Your task to perform on an android device: open app "Google Keep" Image 0: 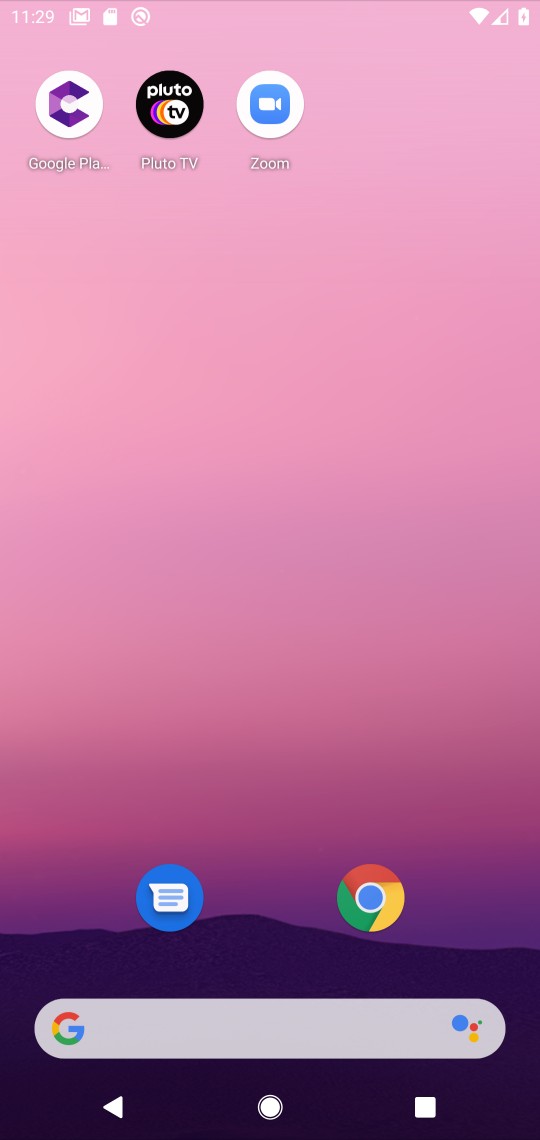
Step 0: press back button
Your task to perform on an android device: open app "Google Keep" Image 1: 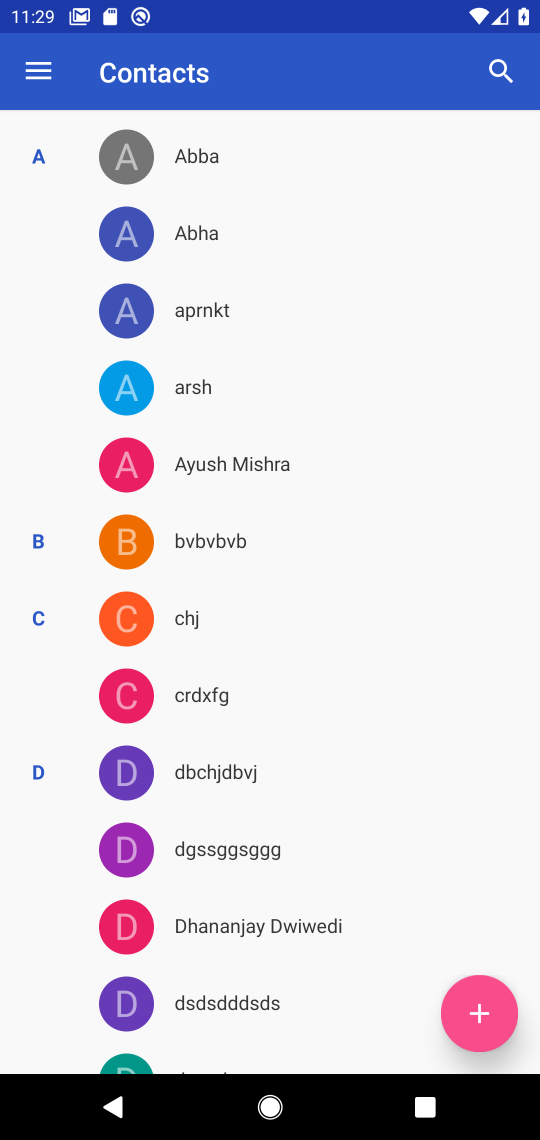
Step 1: click (332, 233)
Your task to perform on an android device: open app "Google Keep" Image 2: 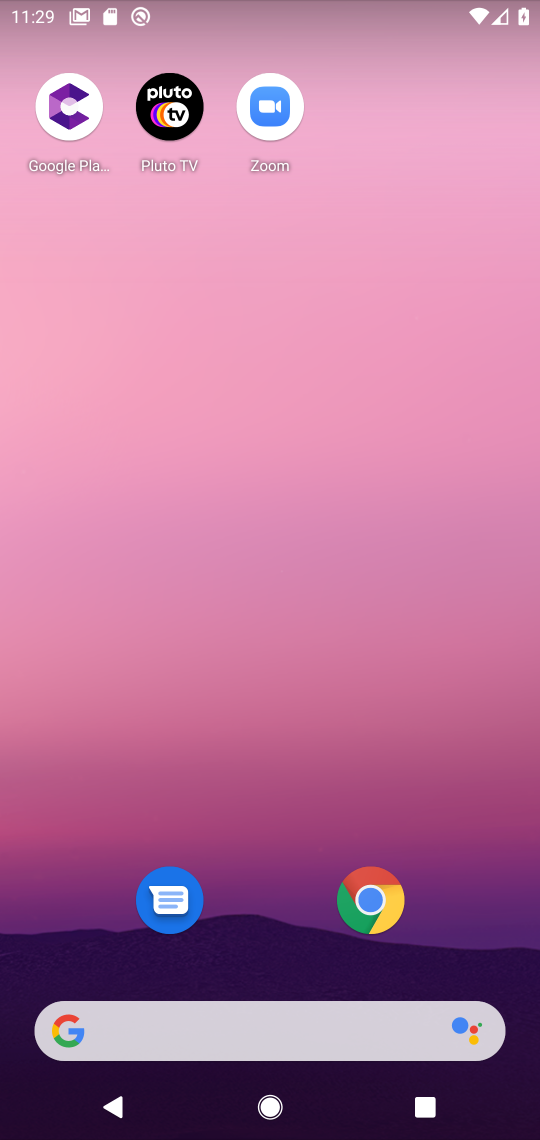
Step 2: drag from (285, 807) to (290, 328)
Your task to perform on an android device: open app "Google Keep" Image 3: 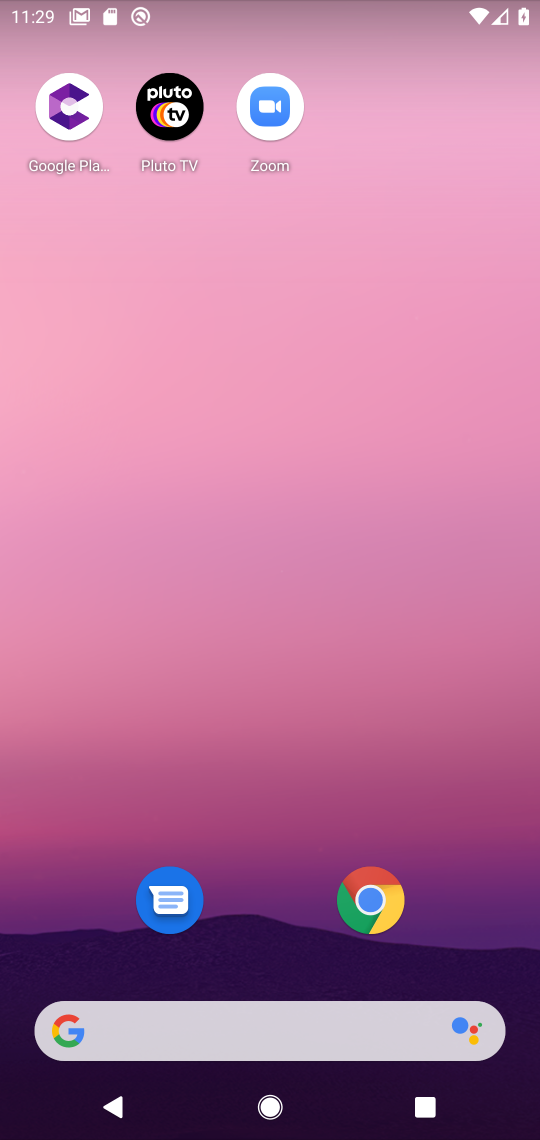
Step 3: drag from (263, 861) to (326, 88)
Your task to perform on an android device: open app "Google Keep" Image 4: 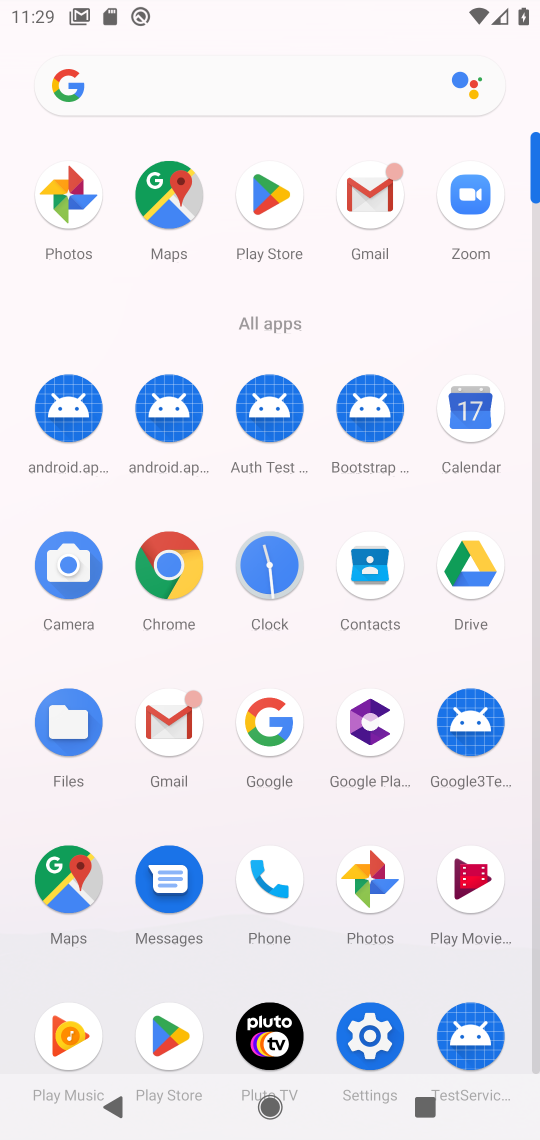
Step 4: click (265, 190)
Your task to perform on an android device: open app "Google Keep" Image 5: 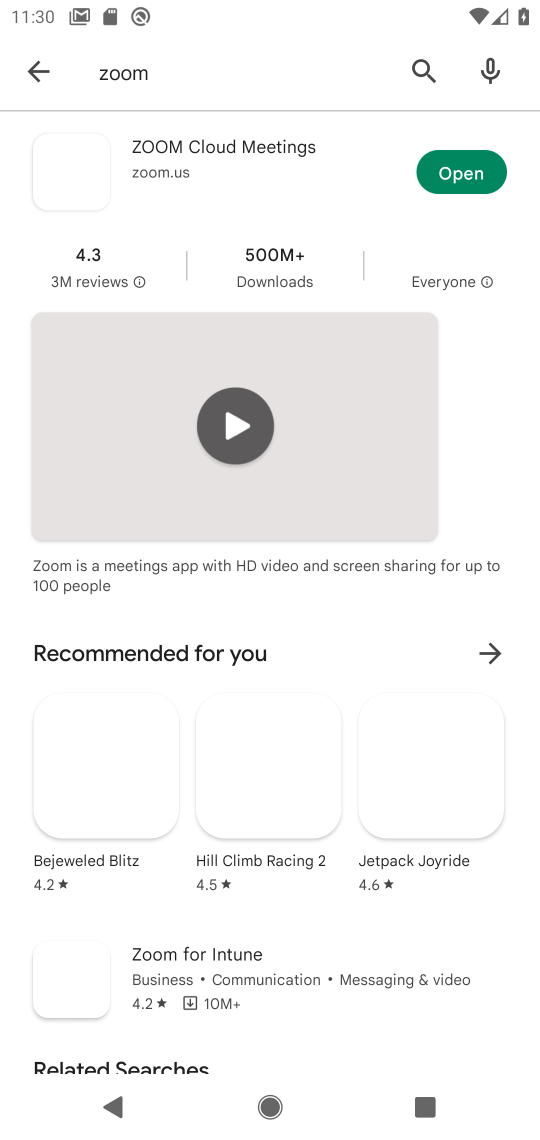
Step 5: click (426, 74)
Your task to perform on an android device: open app "Google Keep" Image 6: 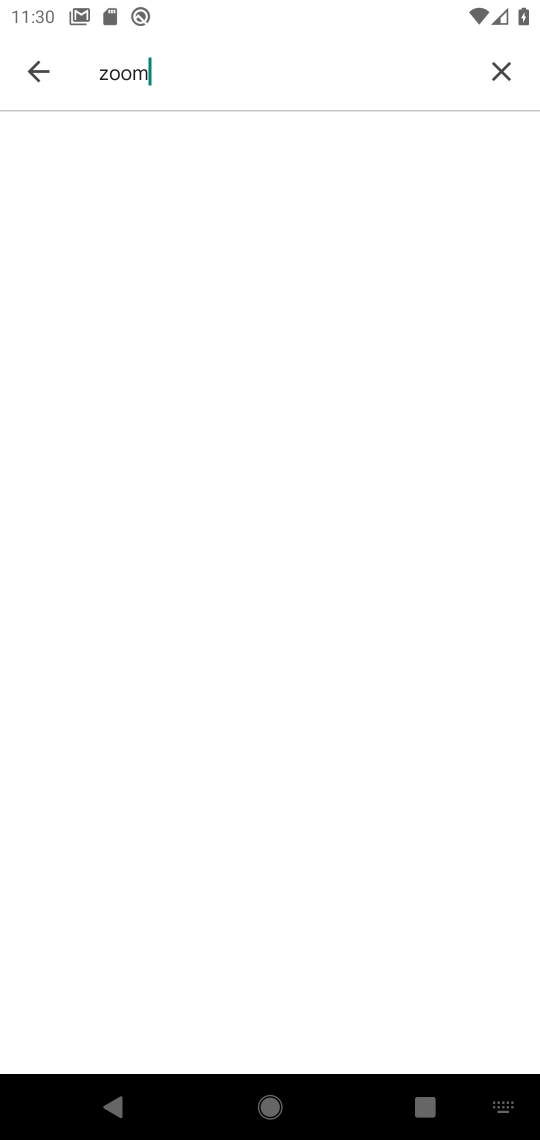
Step 6: click (501, 62)
Your task to perform on an android device: open app "Google Keep" Image 7: 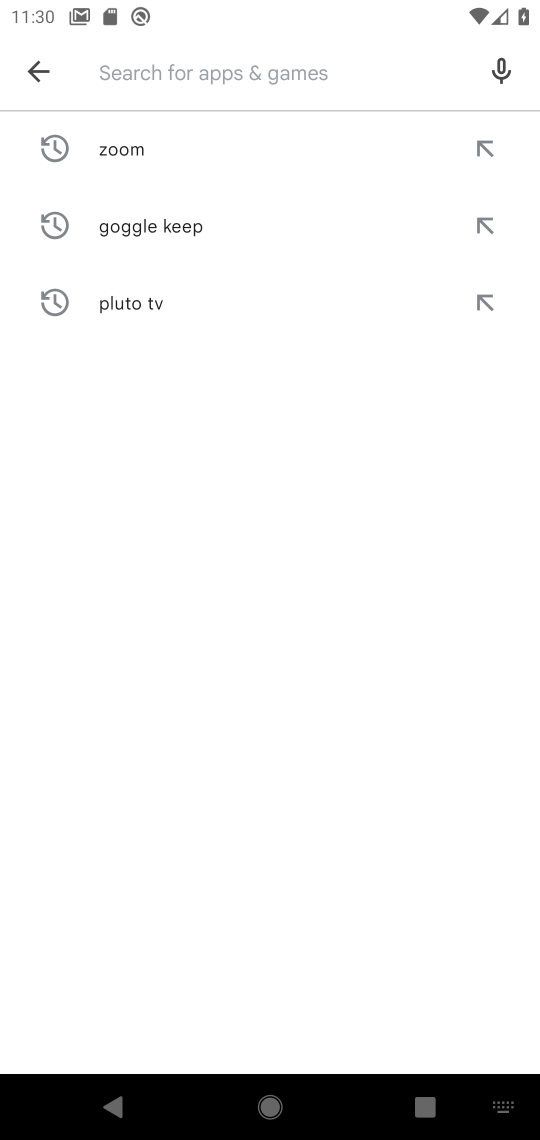
Step 7: click (175, 74)
Your task to perform on an android device: open app "Google Keep" Image 8: 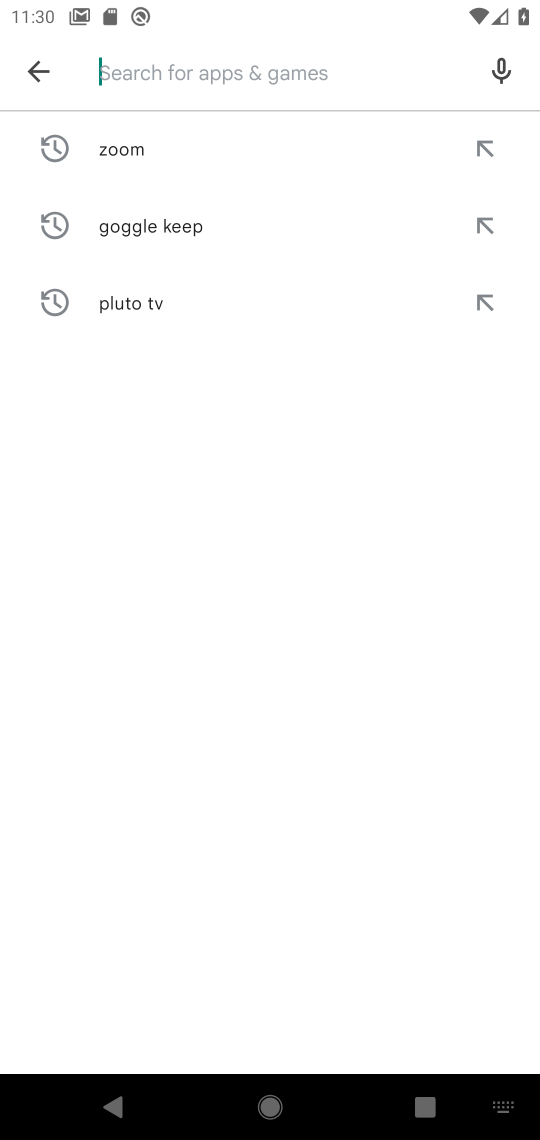
Step 8: type "goggle keep"
Your task to perform on an android device: open app "Google Keep" Image 9: 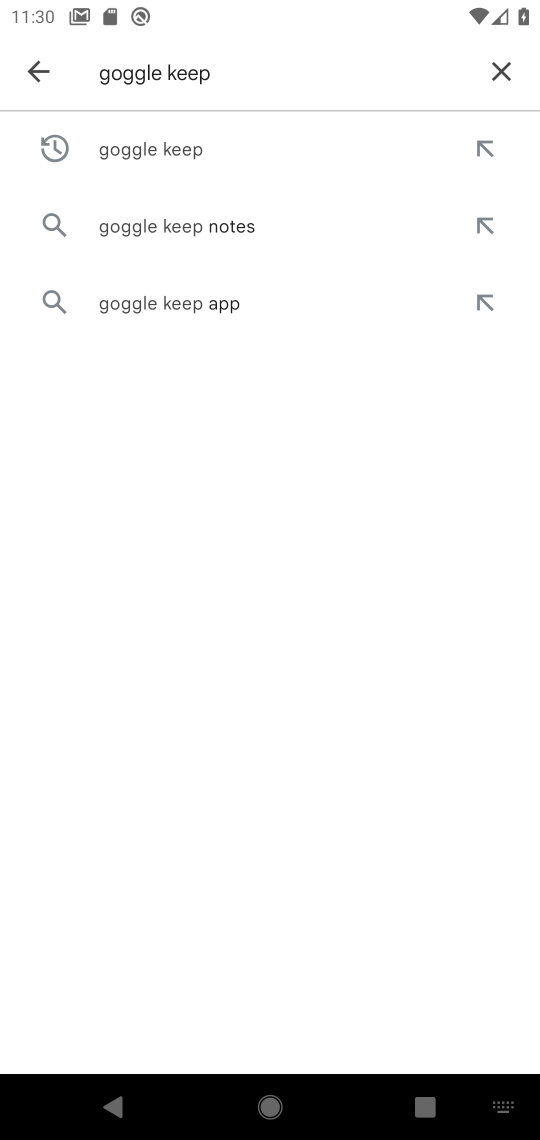
Step 9: click (179, 134)
Your task to perform on an android device: open app "Google Keep" Image 10: 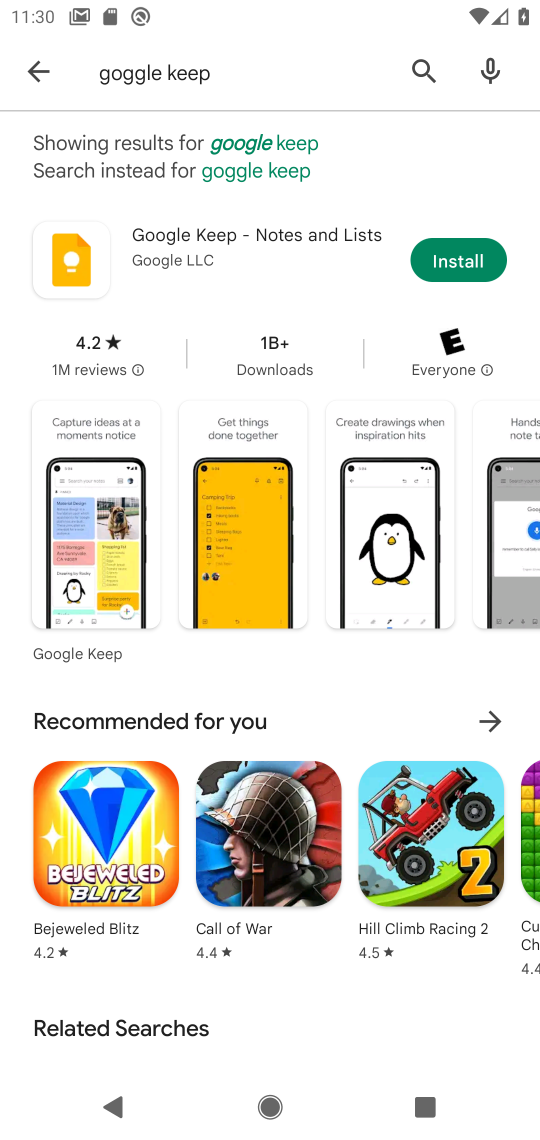
Step 10: task complete